Your task to perform on an android device: change notifications settings Image 0: 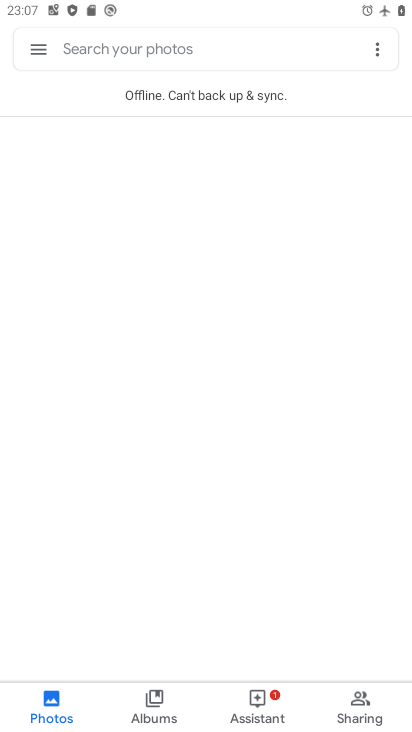
Step 0: press home button
Your task to perform on an android device: change notifications settings Image 1: 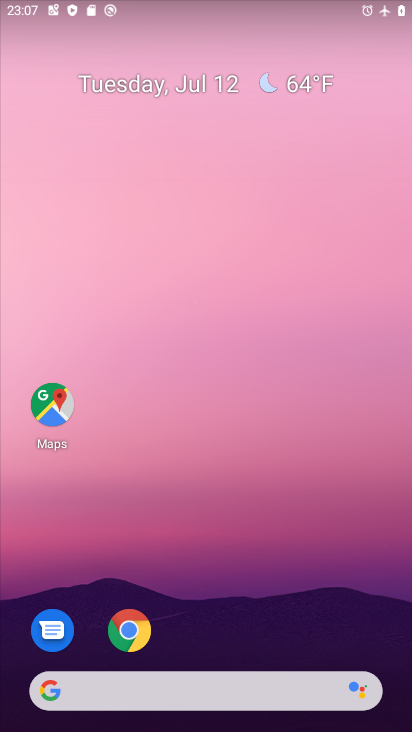
Step 1: drag from (207, 641) to (157, 98)
Your task to perform on an android device: change notifications settings Image 2: 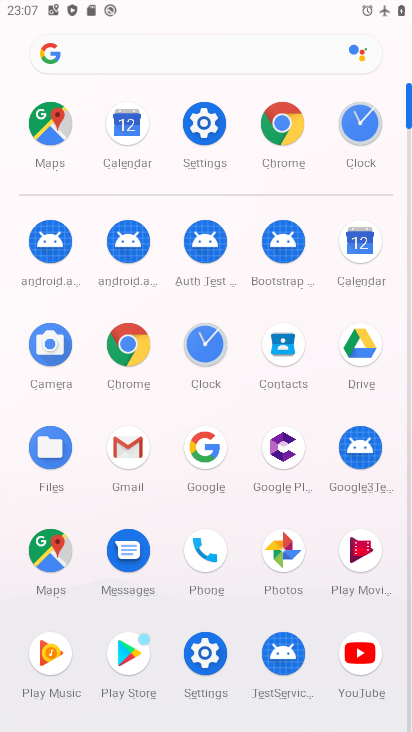
Step 2: click (198, 132)
Your task to perform on an android device: change notifications settings Image 3: 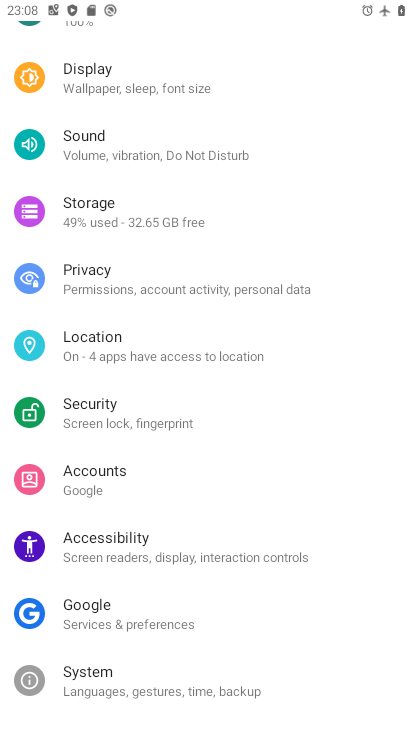
Step 3: drag from (210, 482) to (192, 642)
Your task to perform on an android device: change notifications settings Image 4: 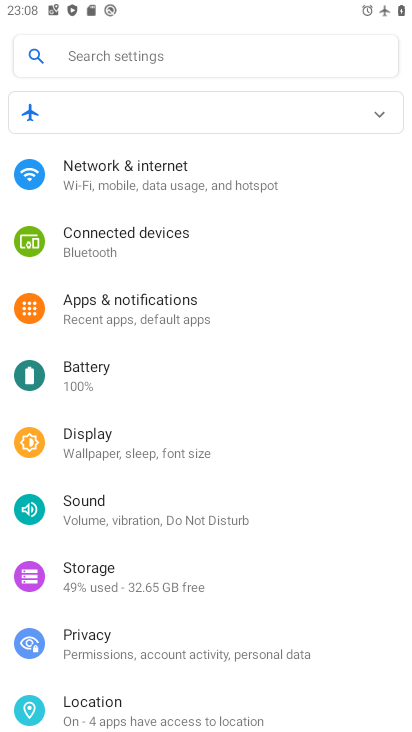
Step 4: click (136, 317)
Your task to perform on an android device: change notifications settings Image 5: 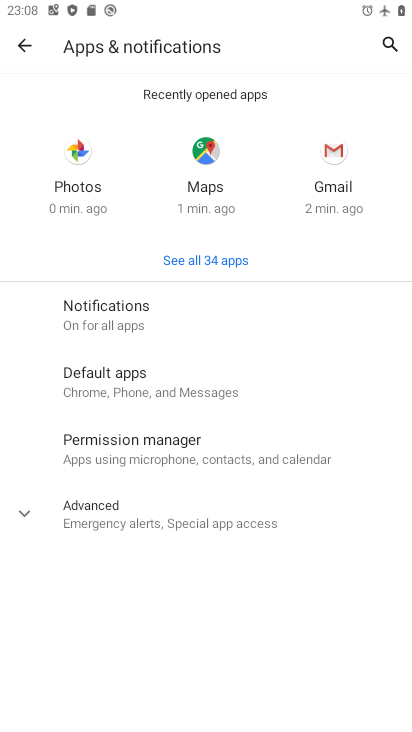
Step 5: task complete